Your task to perform on an android device: see tabs open on other devices in the chrome app Image 0: 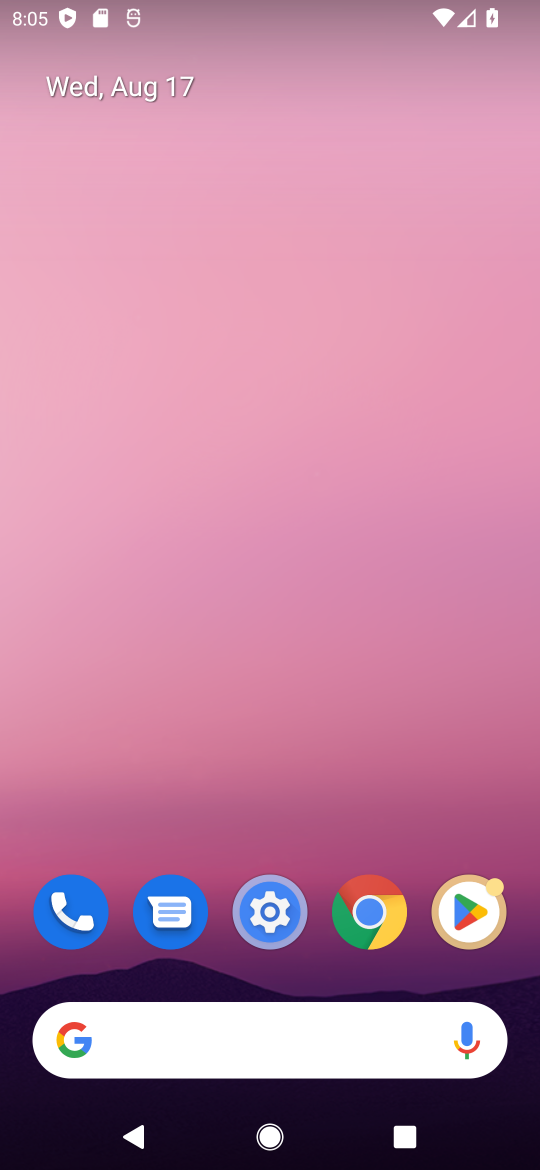
Step 0: click (374, 913)
Your task to perform on an android device: see tabs open on other devices in the chrome app Image 1: 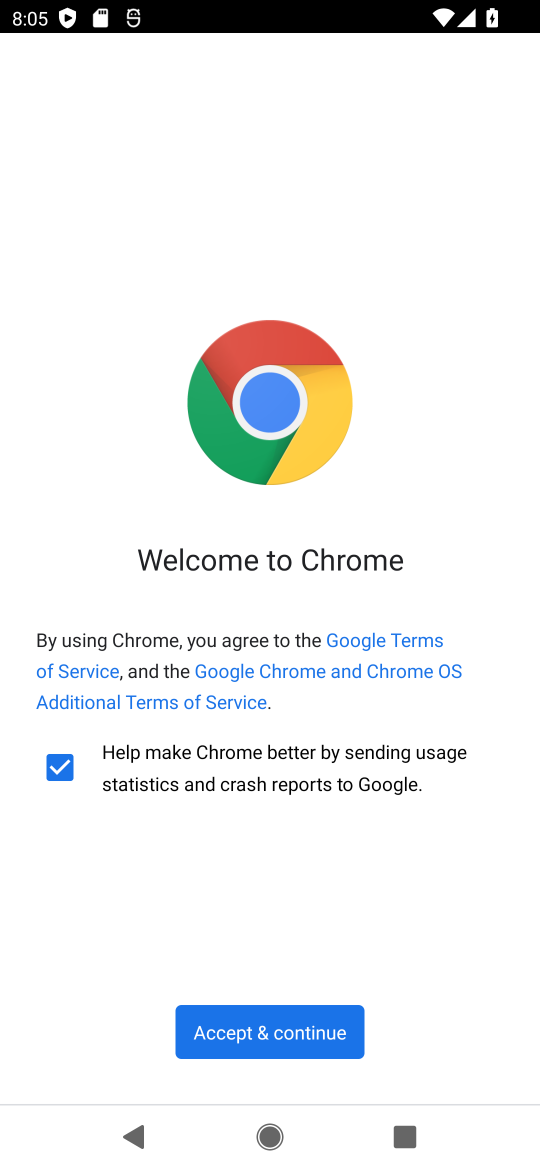
Step 1: click (258, 1019)
Your task to perform on an android device: see tabs open on other devices in the chrome app Image 2: 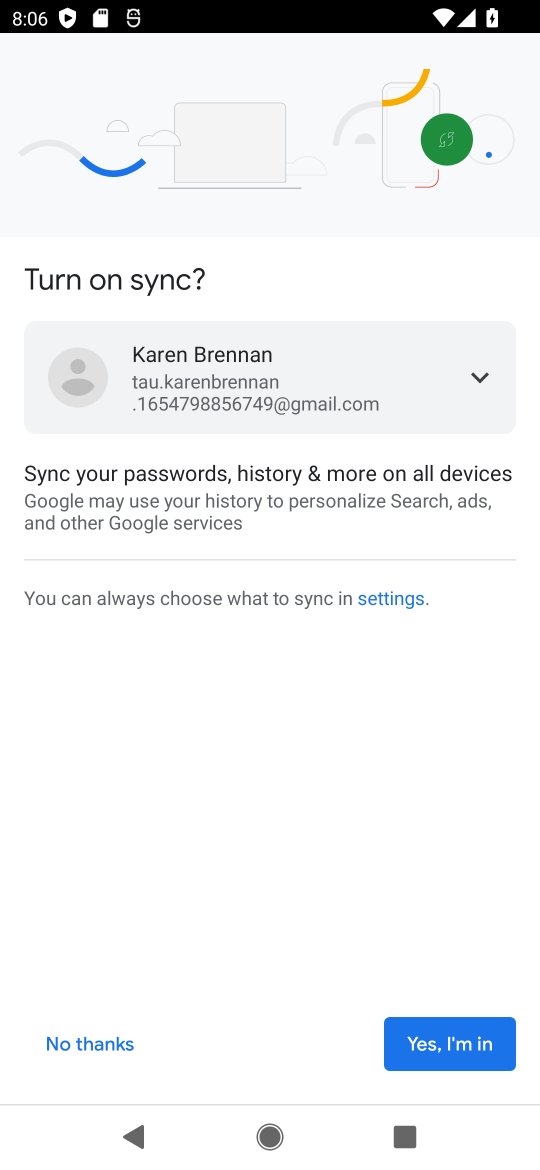
Step 2: click (444, 1045)
Your task to perform on an android device: see tabs open on other devices in the chrome app Image 3: 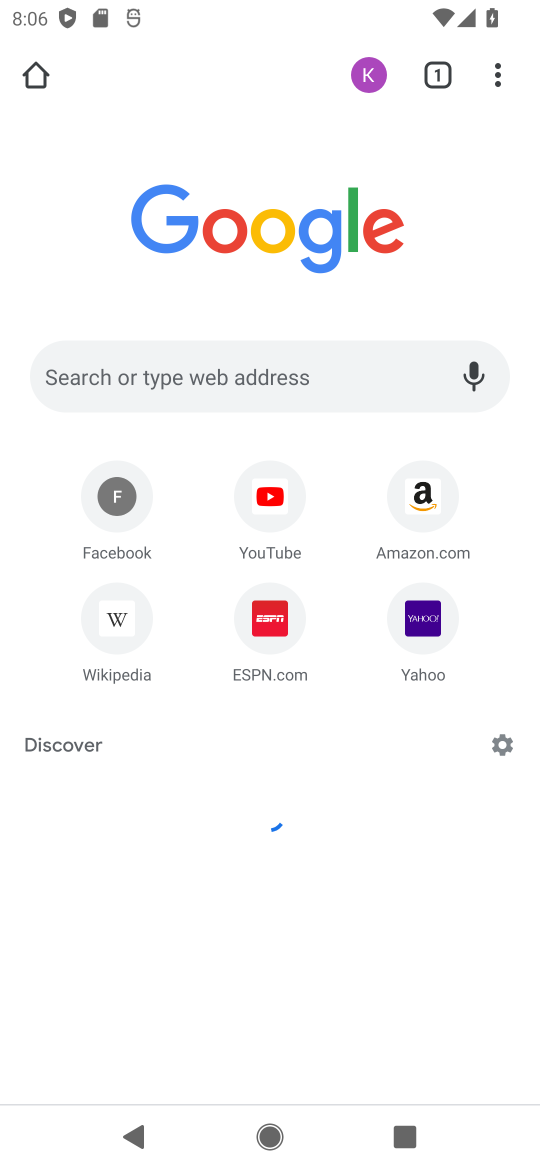
Step 3: click (423, 71)
Your task to perform on an android device: see tabs open on other devices in the chrome app Image 4: 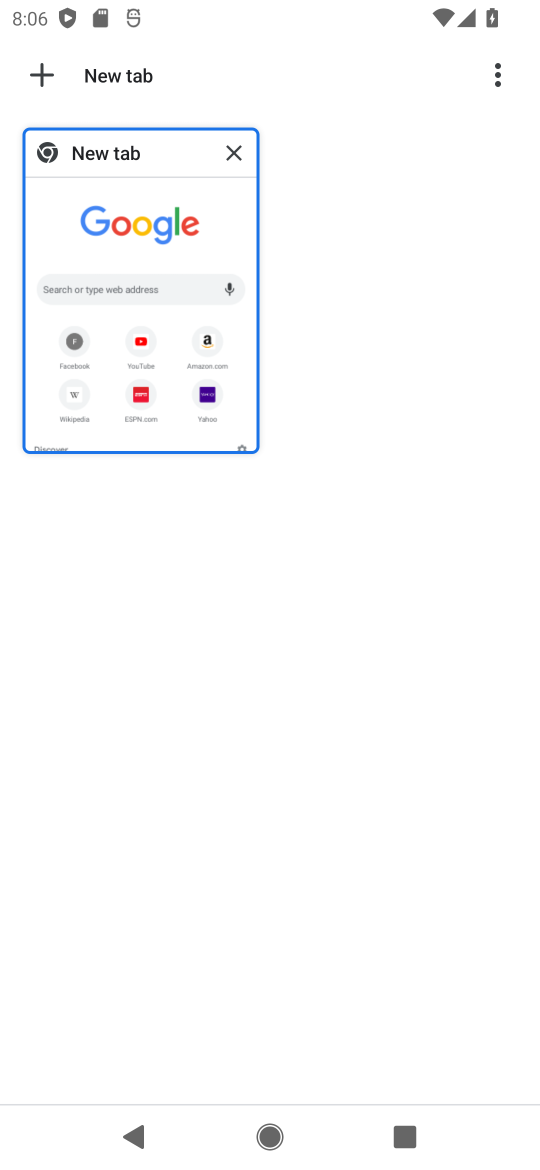
Step 4: task complete